Your task to perform on an android device: empty trash in google photos Image 0: 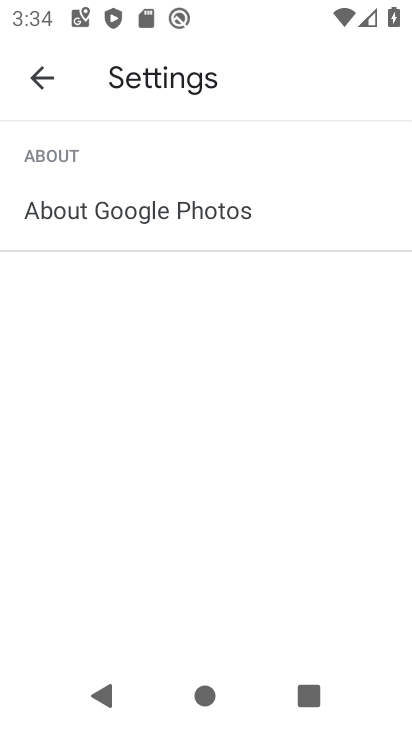
Step 0: press home button
Your task to perform on an android device: empty trash in google photos Image 1: 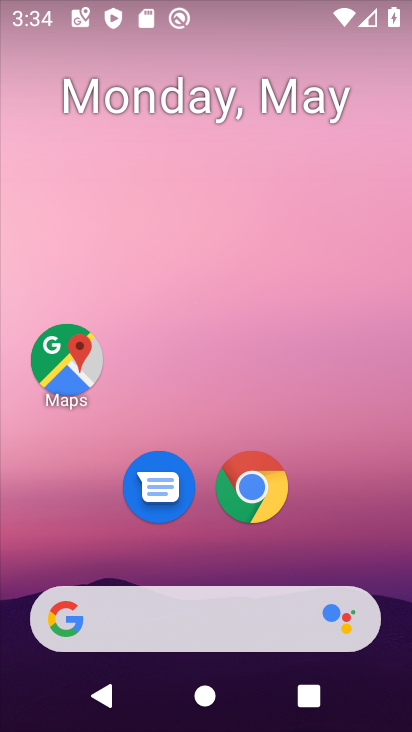
Step 1: drag from (209, 586) to (197, 219)
Your task to perform on an android device: empty trash in google photos Image 2: 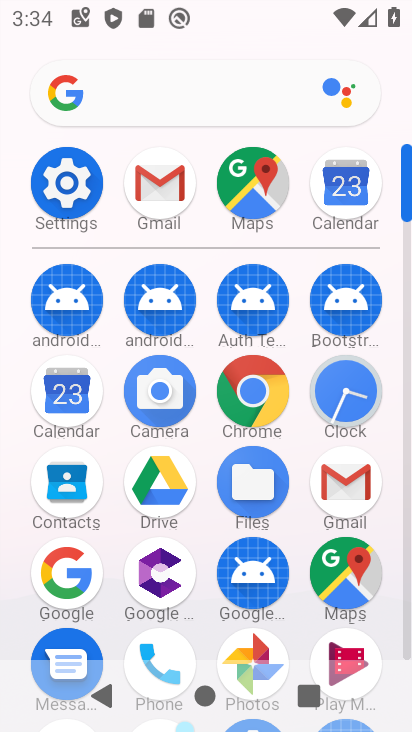
Step 2: click (343, 569)
Your task to perform on an android device: empty trash in google photos Image 3: 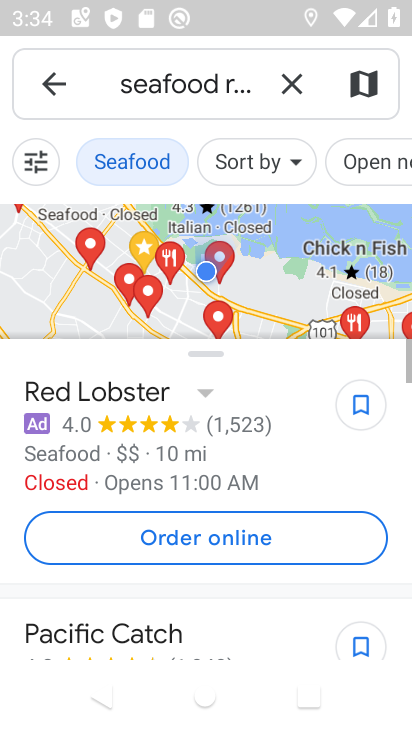
Step 3: press home button
Your task to perform on an android device: empty trash in google photos Image 4: 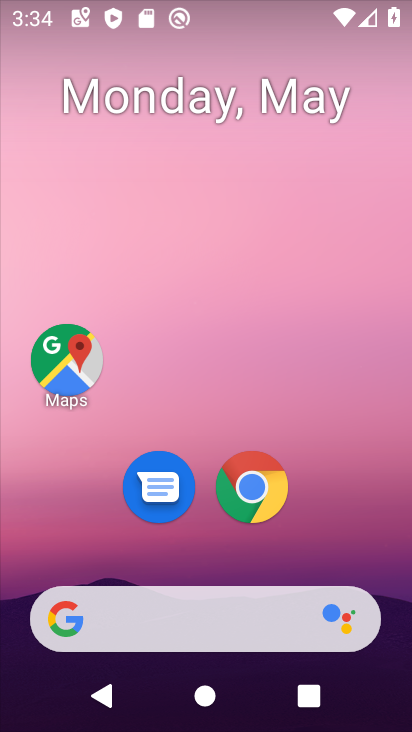
Step 4: drag from (179, 587) to (165, 244)
Your task to perform on an android device: empty trash in google photos Image 5: 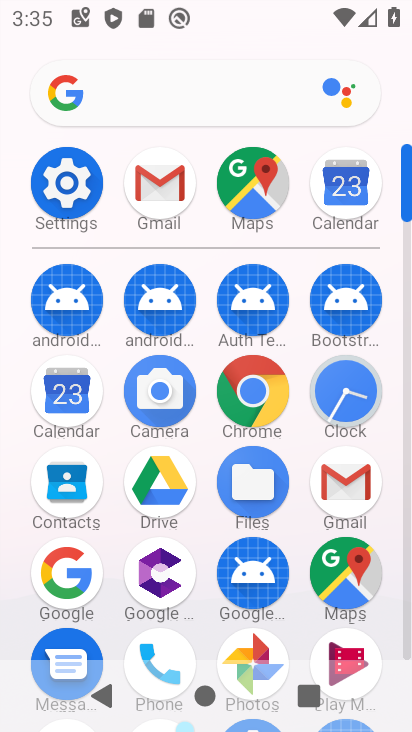
Step 5: click (250, 647)
Your task to perform on an android device: empty trash in google photos Image 6: 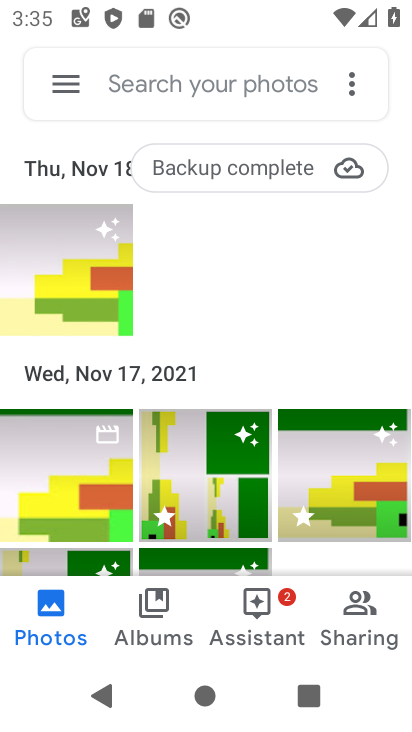
Step 6: click (61, 86)
Your task to perform on an android device: empty trash in google photos Image 7: 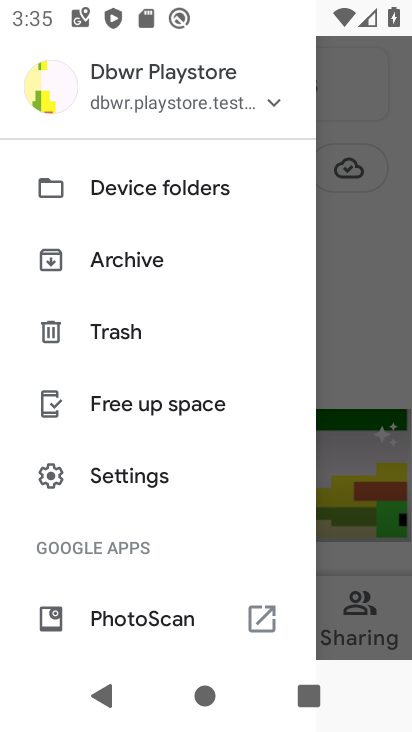
Step 7: click (118, 338)
Your task to perform on an android device: empty trash in google photos Image 8: 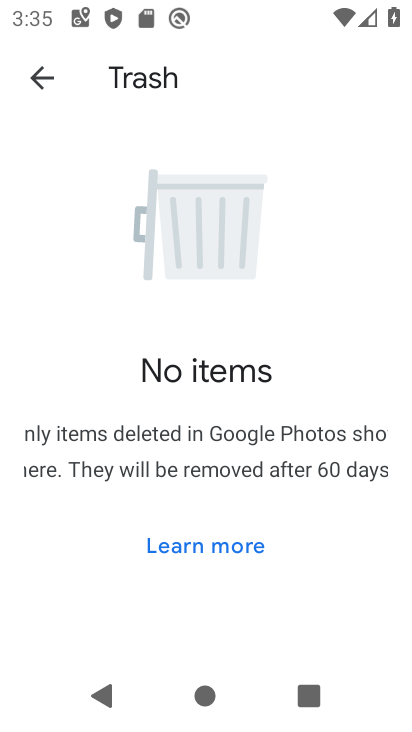
Step 8: task complete